Your task to perform on an android device: Do I have any events today? Image 0: 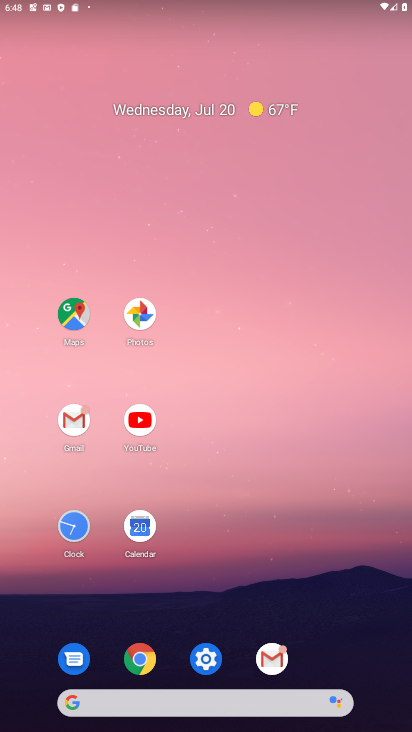
Step 0: click (137, 524)
Your task to perform on an android device: Do I have any events today? Image 1: 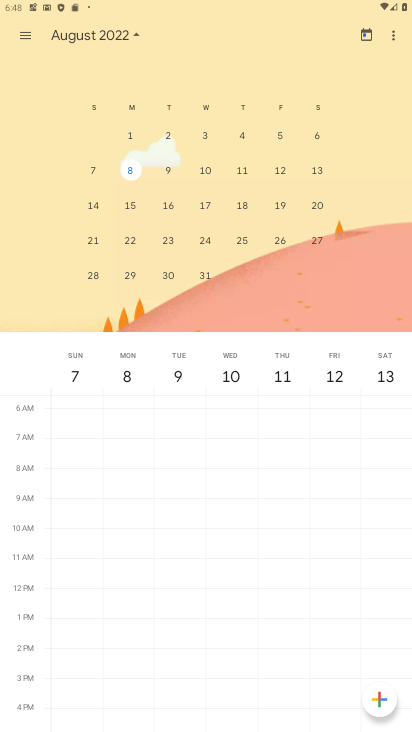
Step 1: drag from (94, 202) to (366, 234)
Your task to perform on an android device: Do I have any events today? Image 2: 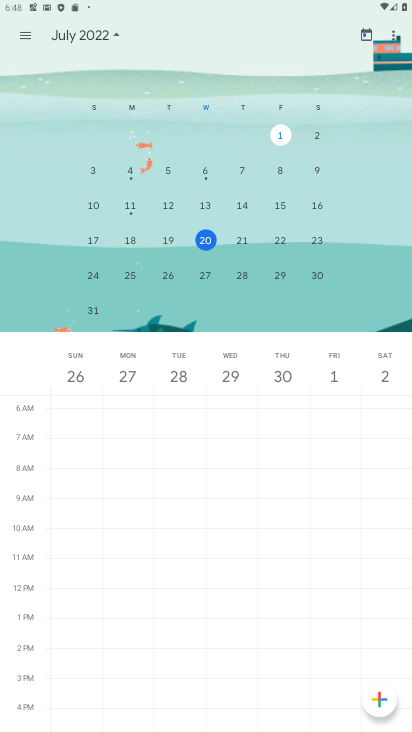
Step 2: click (206, 241)
Your task to perform on an android device: Do I have any events today? Image 3: 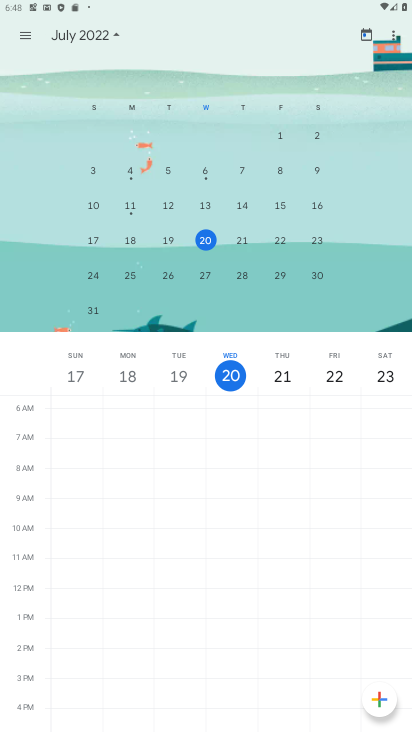
Step 3: task complete